Your task to perform on an android device: open wifi settings Image 0: 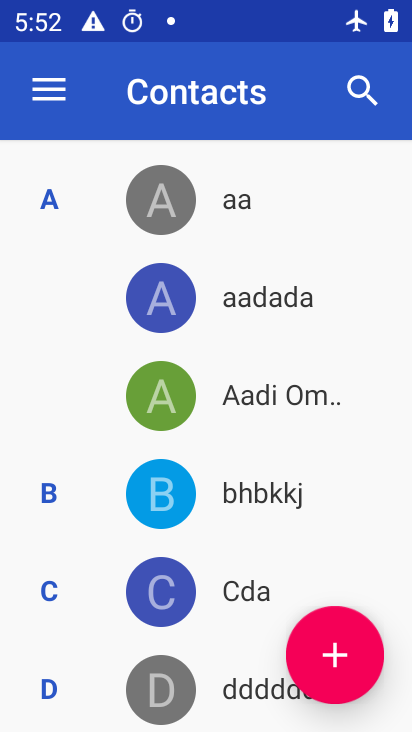
Step 0: press home button
Your task to perform on an android device: open wifi settings Image 1: 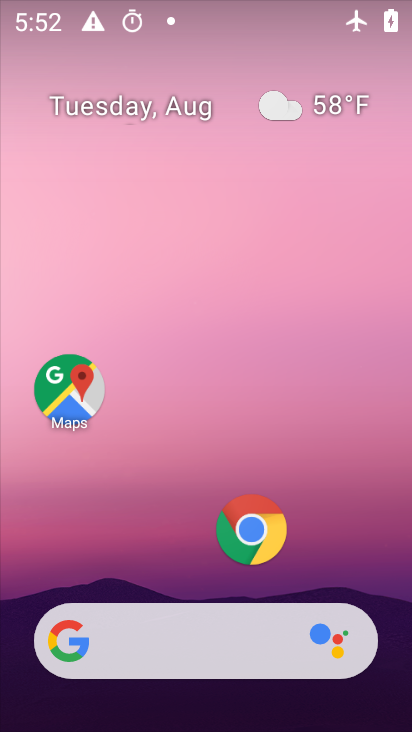
Step 1: drag from (129, 548) to (128, 186)
Your task to perform on an android device: open wifi settings Image 2: 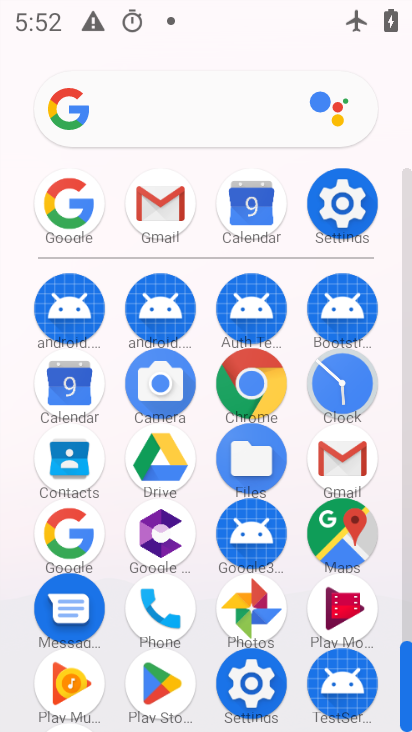
Step 2: click (361, 218)
Your task to perform on an android device: open wifi settings Image 3: 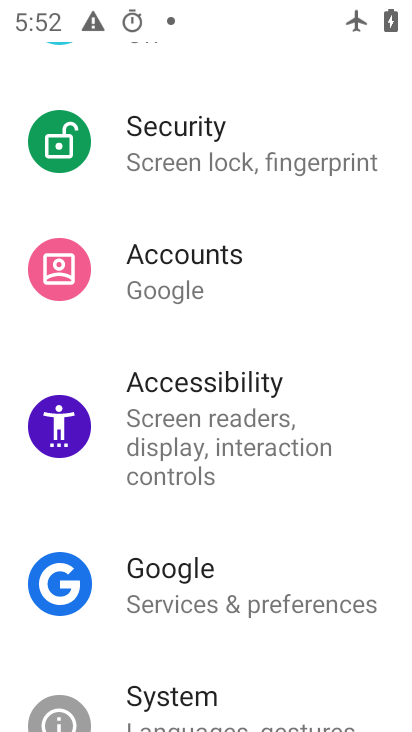
Step 3: drag from (181, 220) to (201, 546)
Your task to perform on an android device: open wifi settings Image 4: 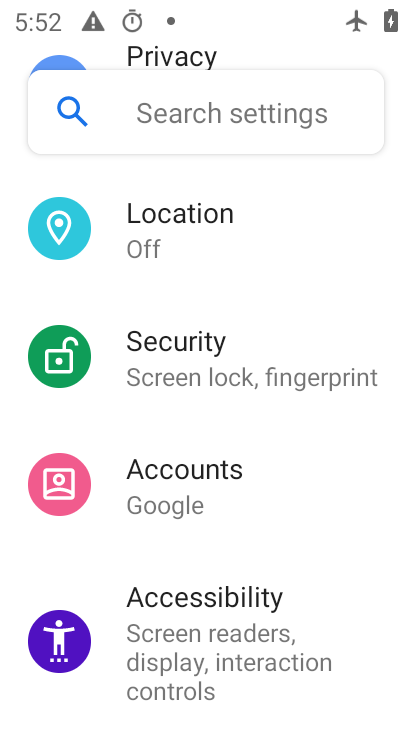
Step 4: drag from (205, 246) to (239, 562)
Your task to perform on an android device: open wifi settings Image 5: 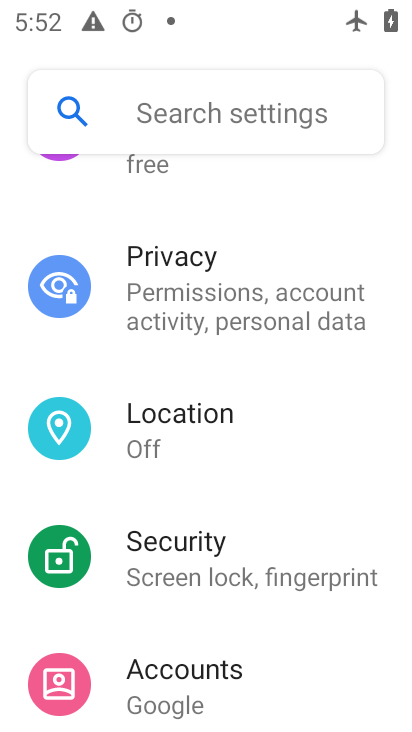
Step 5: drag from (230, 284) to (233, 555)
Your task to perform on an android device: open wifi settings Image 6: 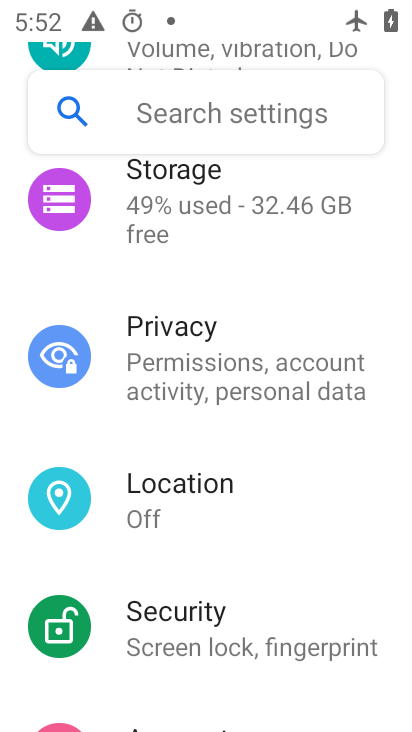
Step 6: click (226, 603)
Your task to perform on an android device: open wifi settings Image 7: 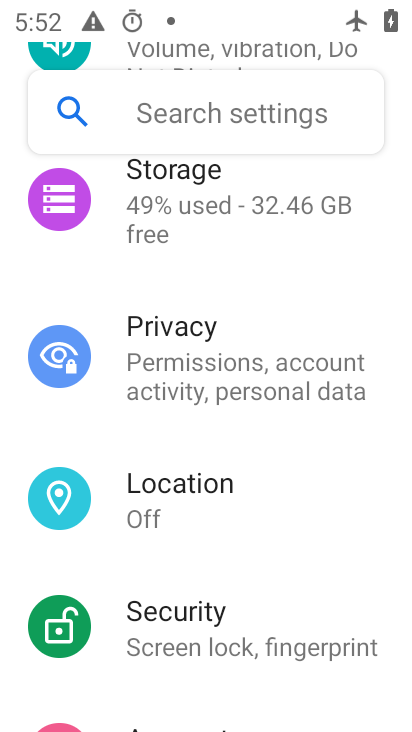
Step 7: drag from (245, 260) to (245, 544)
Your task to perform on an android device: open wifi settings Image 8: 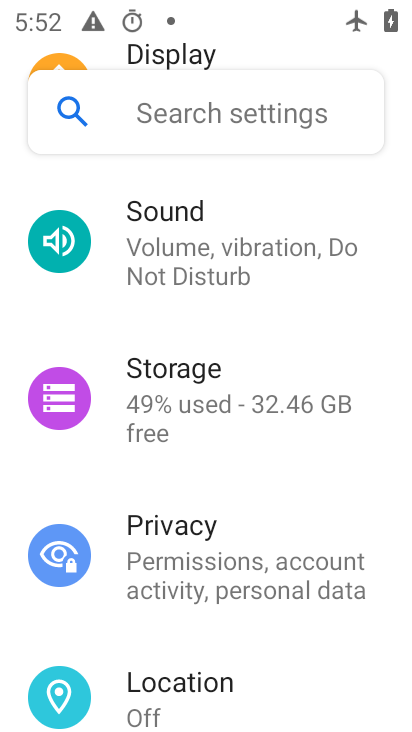
Step 8: drag from (239, 254) to (245, 589)
Your task to perform on an android device: open wifi settings Image 9: 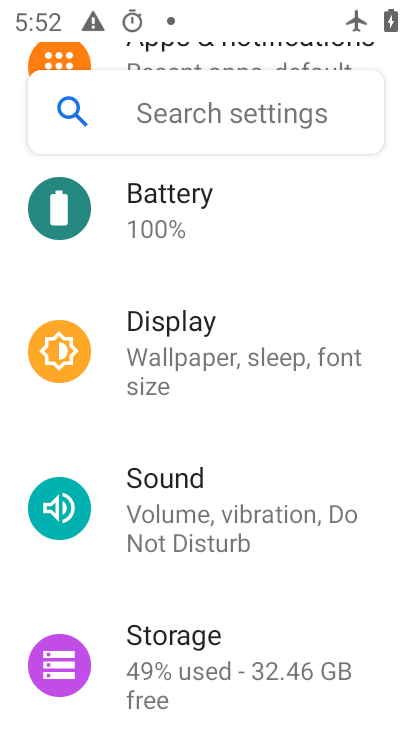
Step 9: drag from (224, 308) to (229, 634)
Your task to perform on an android device: open wifi settings Image 10: 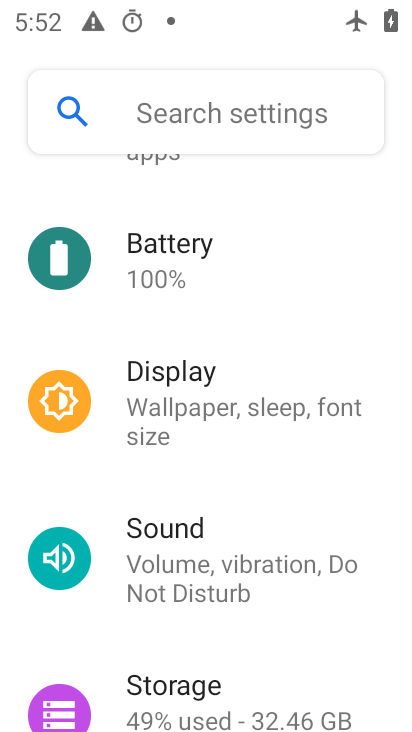
Step 10: click (268, 594)
Your task to perform on an android device: open wifi settings Image 11: 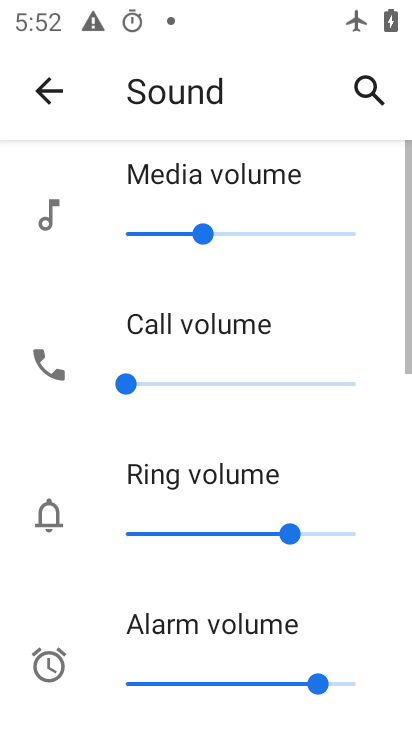
Step 11: click (257, 526)
Your task to perform on an android device: open wifi settings Image 12: 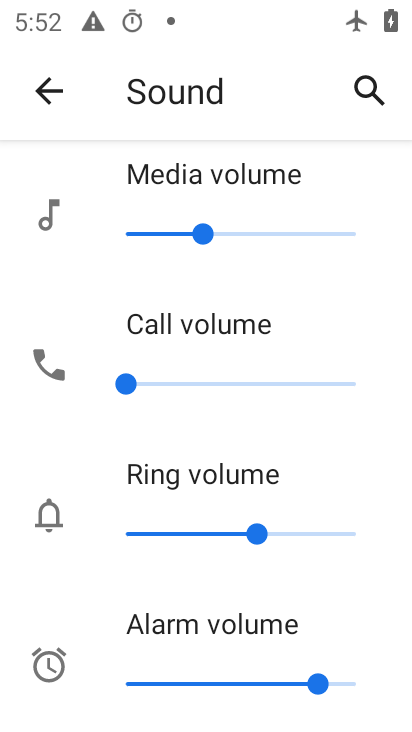
Step 12: click (46, 83)
Your task to perform on an android device: open wifi settings Image 13: 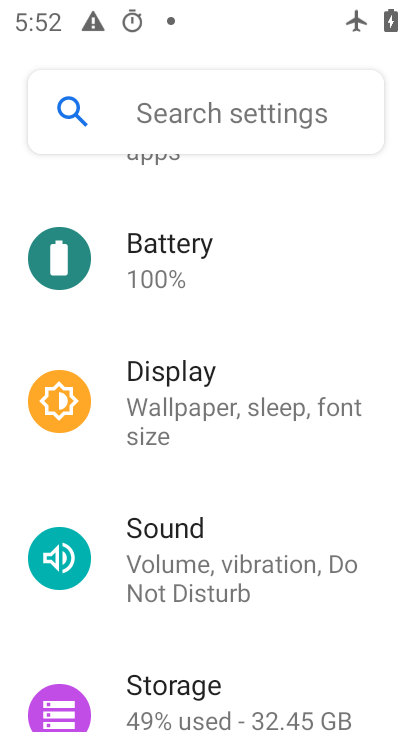
Step 13: drag from (285, 274) to (302, 614)
Your task to perform on an android device: open wifi settings Image 14: 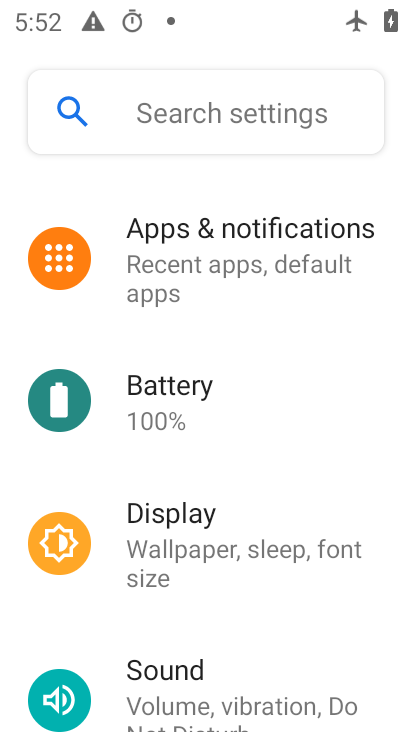
Step 14: click (251, 605)
Your task to perform on an android device: open wifi settings Image 15: 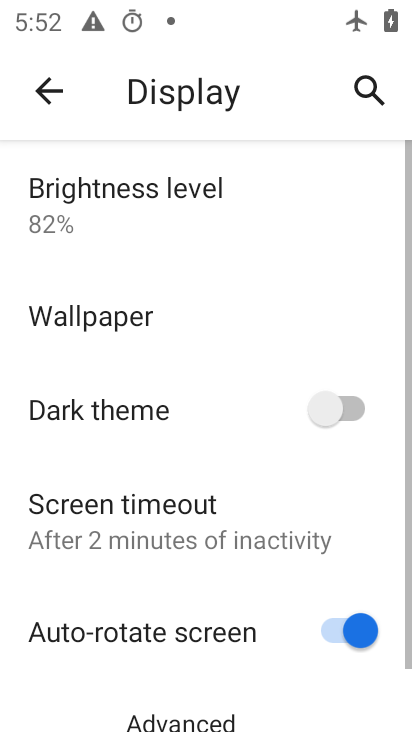
Step 15: click (52, 96)
Your task to perform on an android device: open wifi settings Image 16: 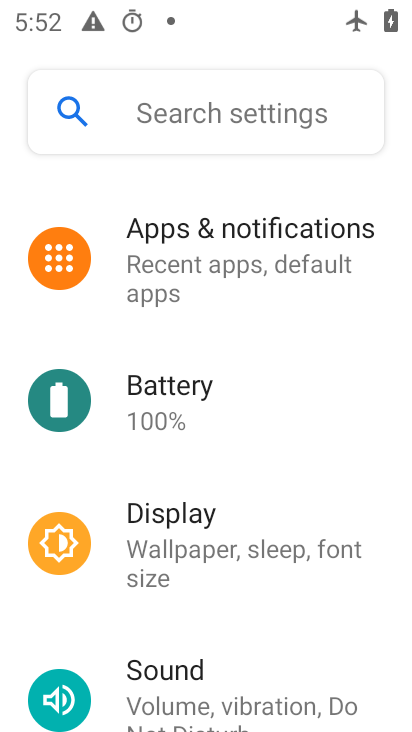
Step 16: drag from (243, 395) to (253, 645)
Your task to perform on an android device: open wifi settings Image 17: 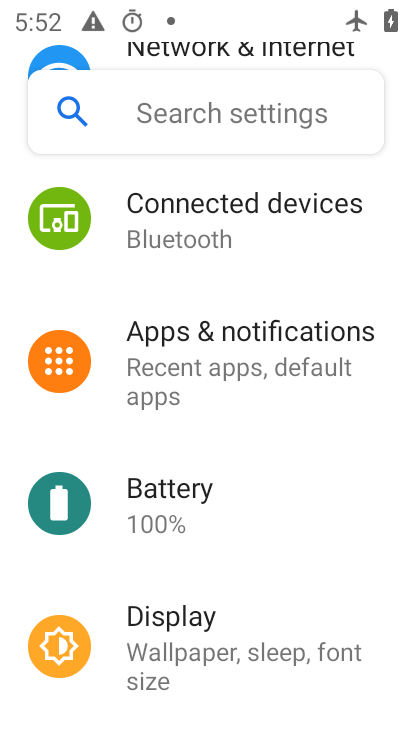
Step 17: drag from (274, 272) to (273, 600)
Your task to perform on an android device: open wifi settings Image 18: 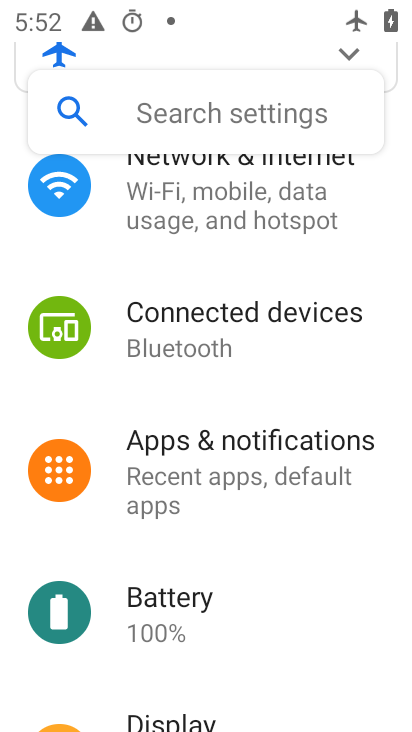
Step 18: click (216, 201)
Your task to perform on an android device: open wifi settings Image 19: 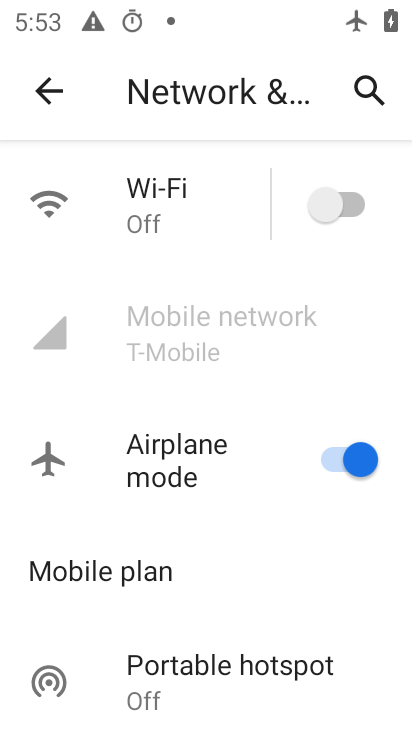
Step 19: click (213, 189)
Your task to perform on an android device: open wifi settings Image 20: 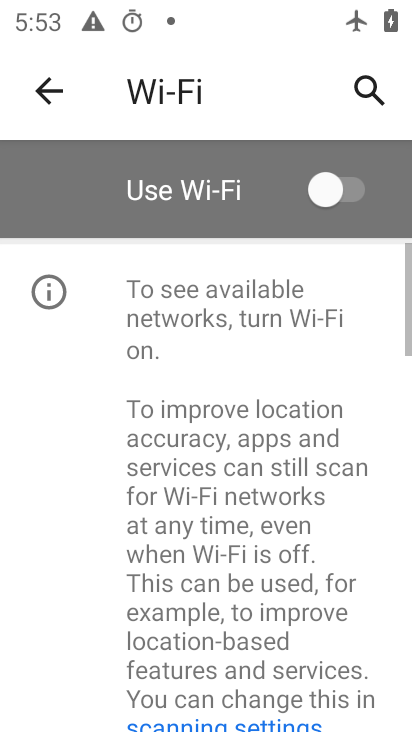
Step 20: task complete